Your task to perform on an android device: Open network settings Image 0: 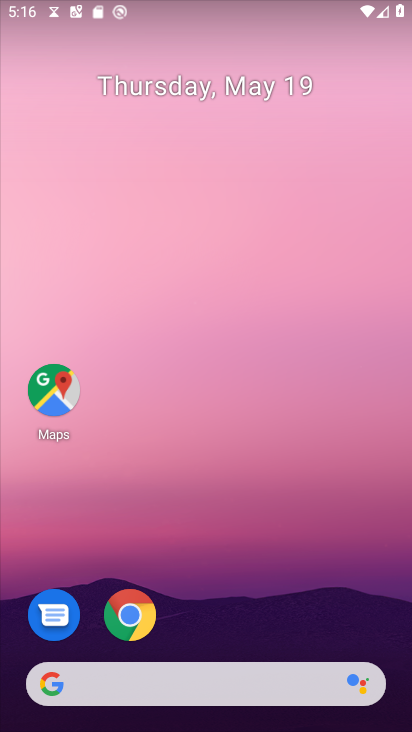
Step 0: drag from (310, 643) to (290, 173)
Your task to perform on an android device: Open network settings Image 1: 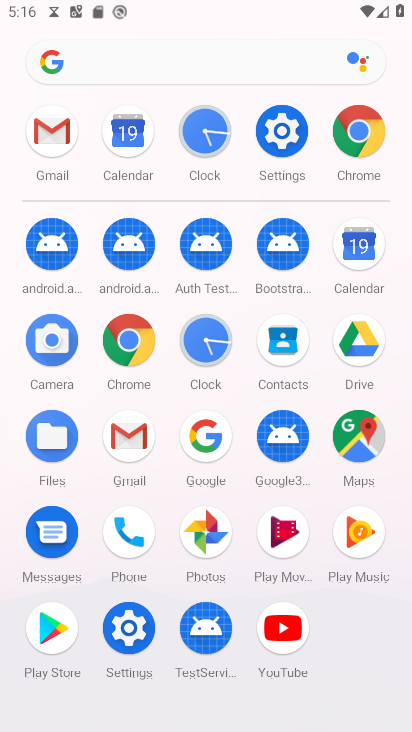
Step 1: click (278, 128)
Your task to perform on an android device: Open network settings Image 2: 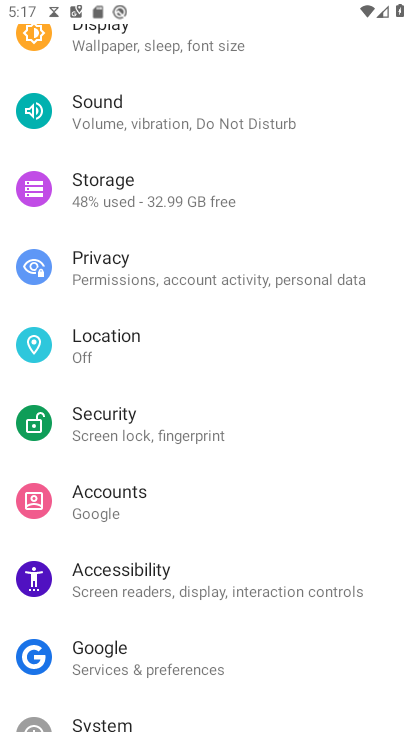
Step 2: drag from (238, 161) to (243, 611)
Your task to perform on an android device: Open network settings Image 3: 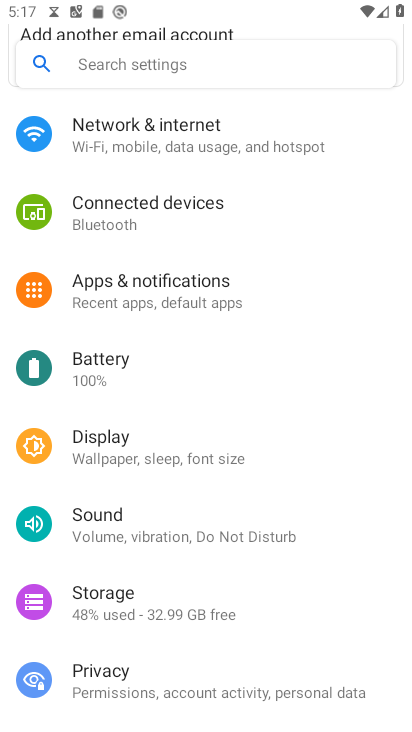
Step 3: drag from (176, 230) to (194, 479)
Your task to perform on an android device: Open network settings Image 4: 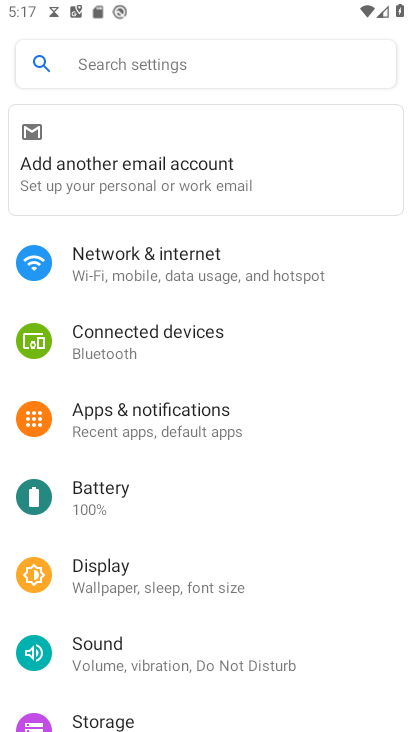
Step 4: click (164, 265)
Your task to perform on an android device: Open network settings Image 5: 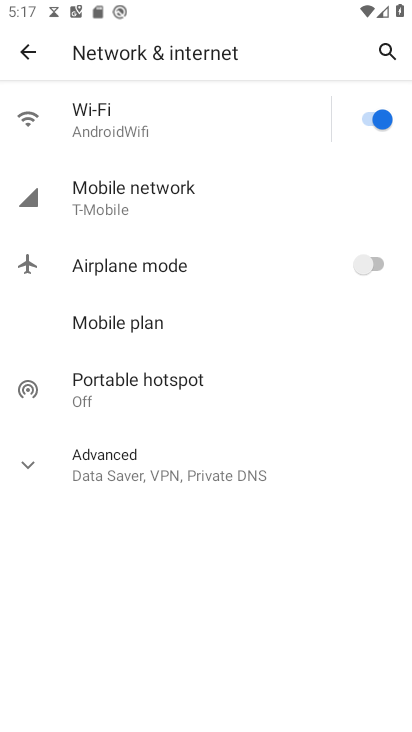
Step 5: task complete